Your task to perform on an android device: What time is it in Beijing? Image 0: 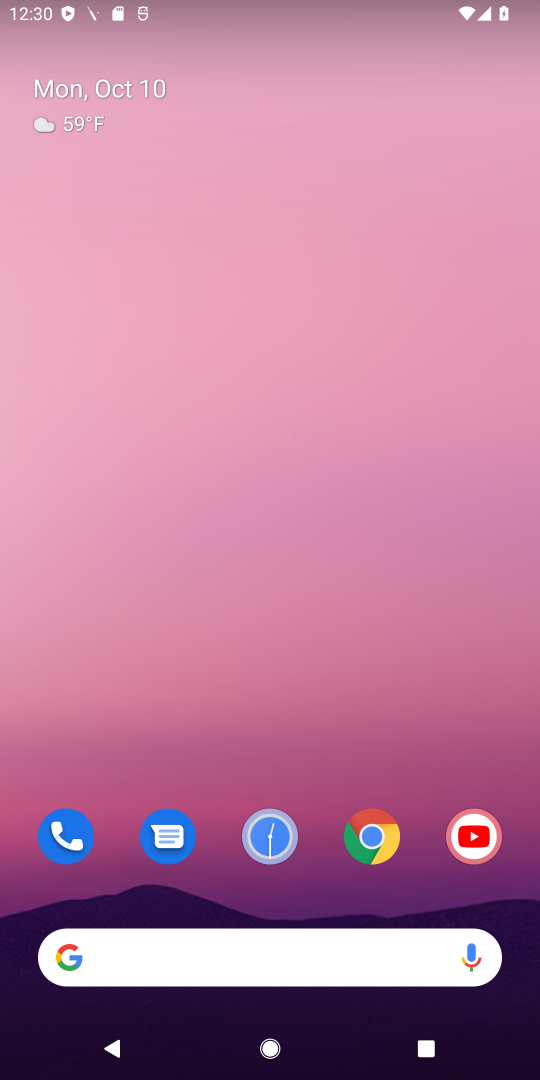
Step 0: click (382, 844)
Your task to perform on an android device: What time is it in Beijing? Image 1: 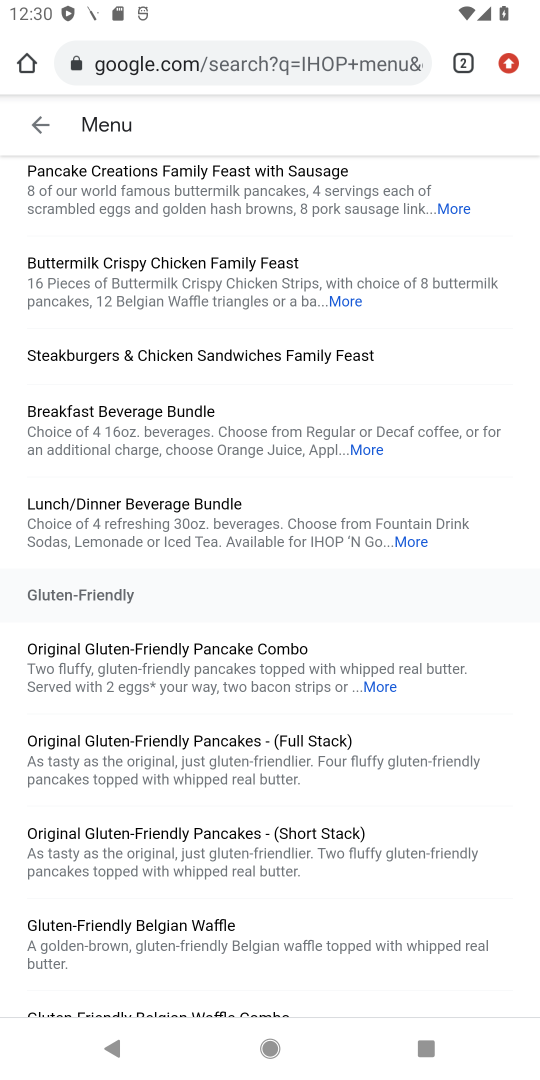
Step 1: click (247, 58)
Your task to perform on an android device: What time is it in Beijing? Image 2: 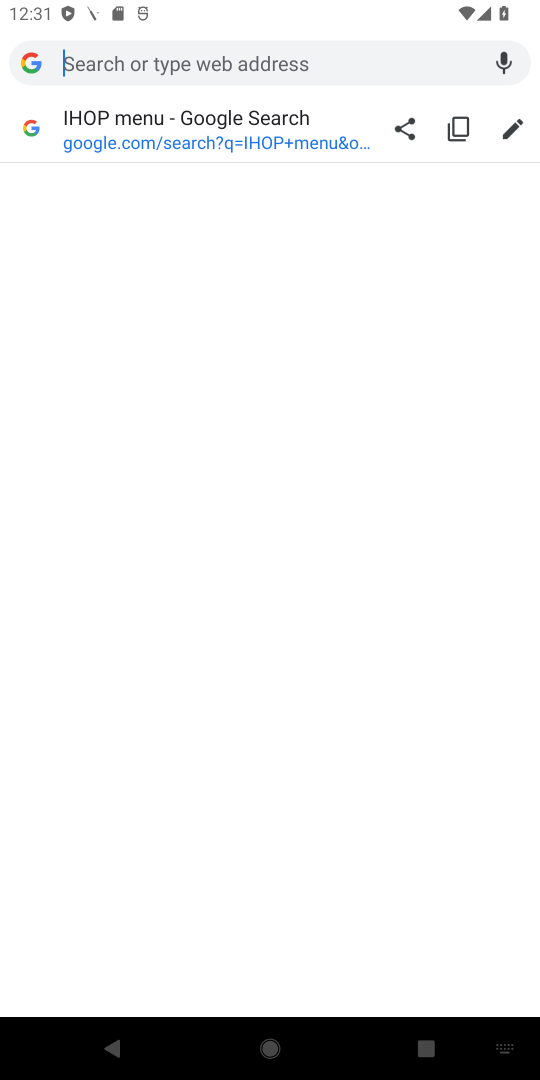
Step 2: type "time in beijing"
Your task to perform on an android device: What time is it in Beijing? Image 3: 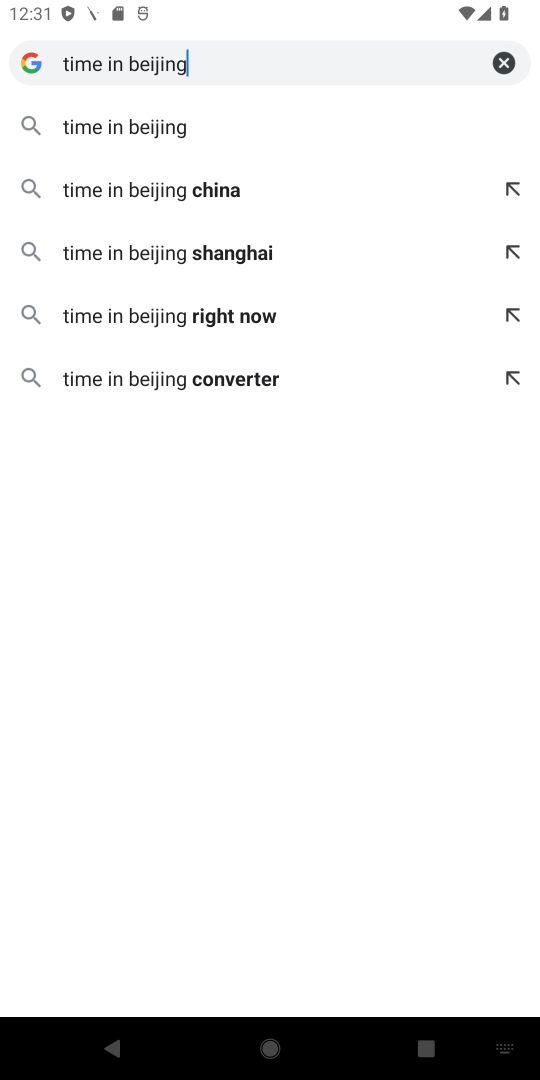
Step 3: click (201, 119)
Your task to perform on an android device: What time is it in Beijing? Image 4: 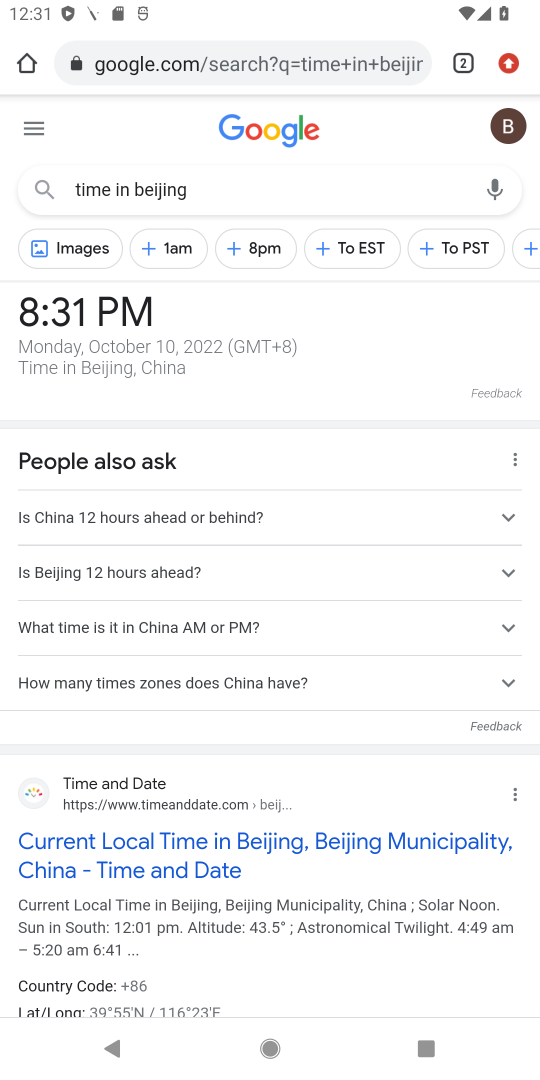
Step 4: task complete